Your task to perform on an android device: visit the assistant section in the google photos Image 0: 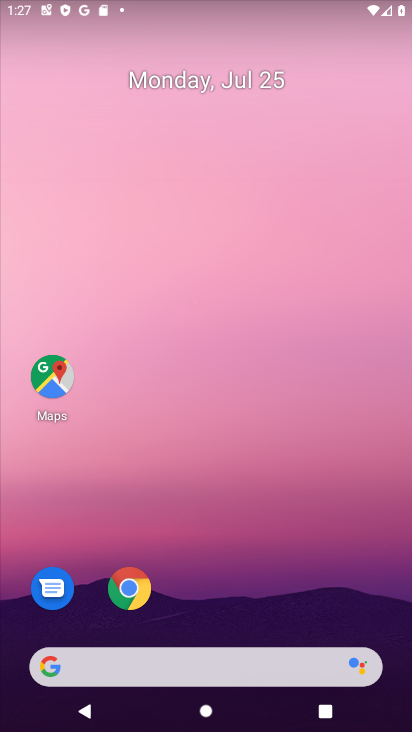
Step 0: drag from (196, 581) to (186, 63)
Your task to perform on an android device: visit the assistant section in the google photos Image 1: 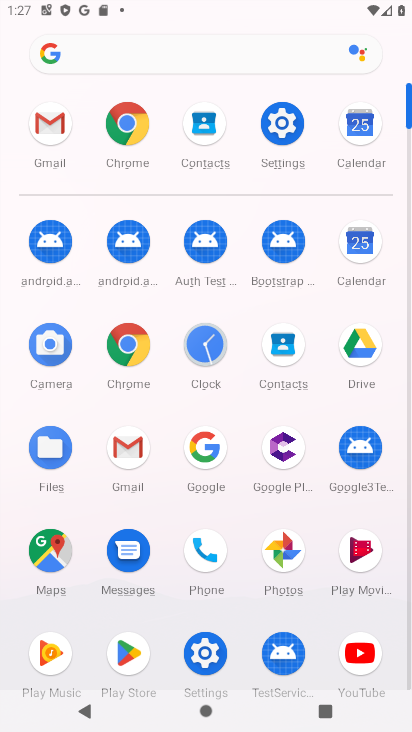
Step 1: click (274, 555)
Your task to perform on an android device: visit the assistant section in the google photos Image 2: 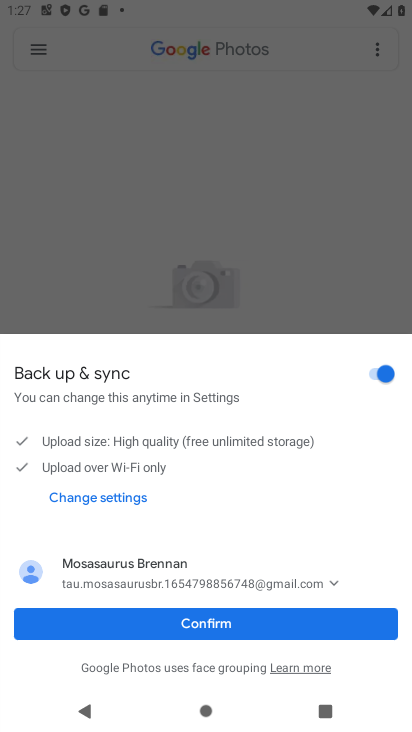
Step 2: click (211, 625)
Your task to perform on an android device: visit the assistant section in the google photos Image 3: 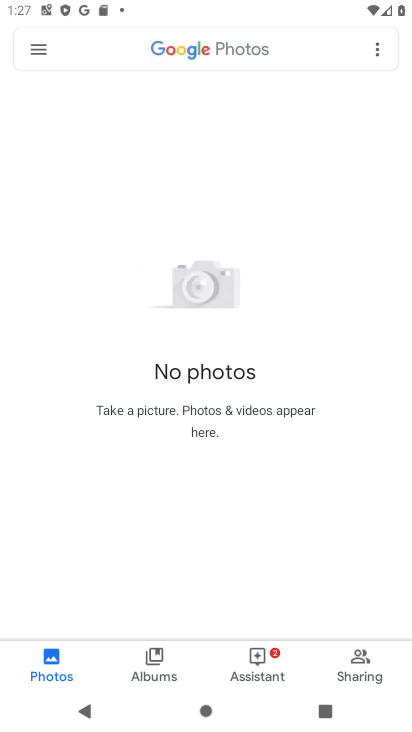
Step 3: click (34, 45)
Your task to perform on an android device: visit the assistant section in the google photos Image 4: 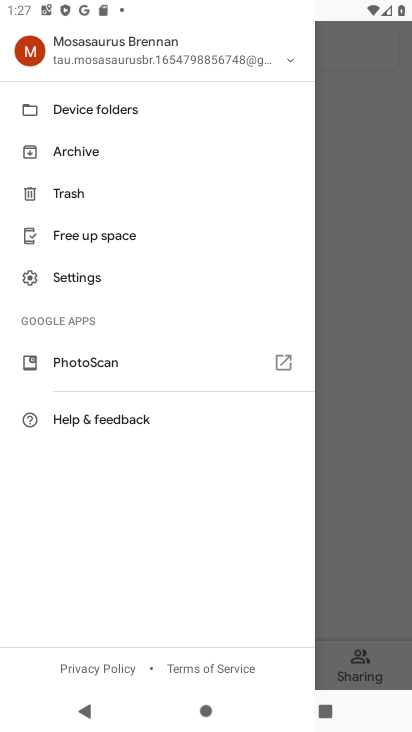
Step 4: press back button
Your task to perform on an android device: visit the assistant section in the google photos Image 5: 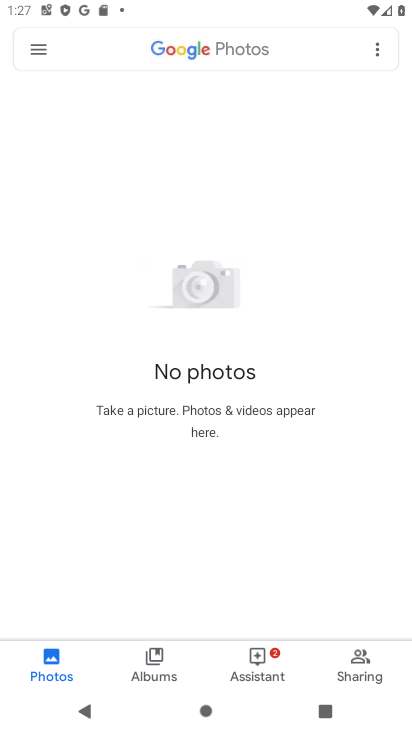
Step 5: click (263, 676)
Your task to perform on an android device: visit the assistant section in the google photos Image 6: 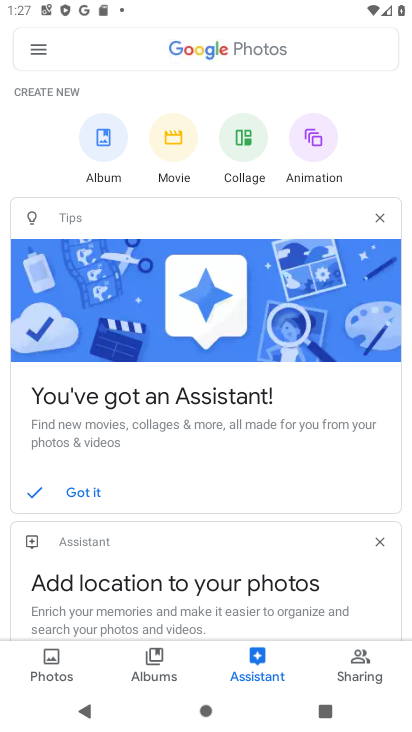
Step 6: drag from (248, 466) to (248, 146)
Your task to perform on an android device: visit the assistant section in the google photos Image 7: 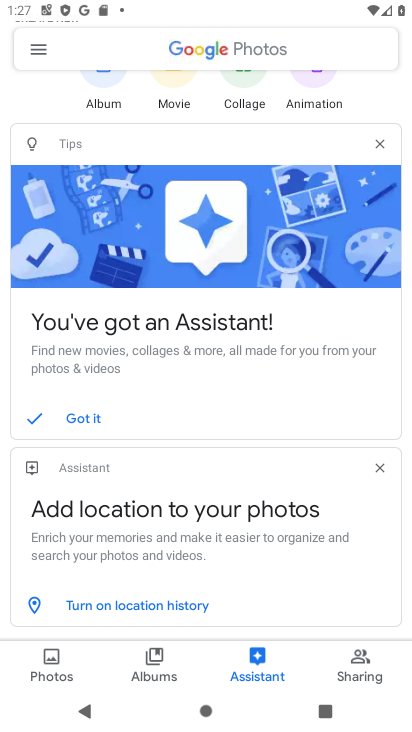
Step 7: drag from (274, 428) to (267, 329)
Your task to perform on an android device: visit the assistant section in the google photos Image 8: 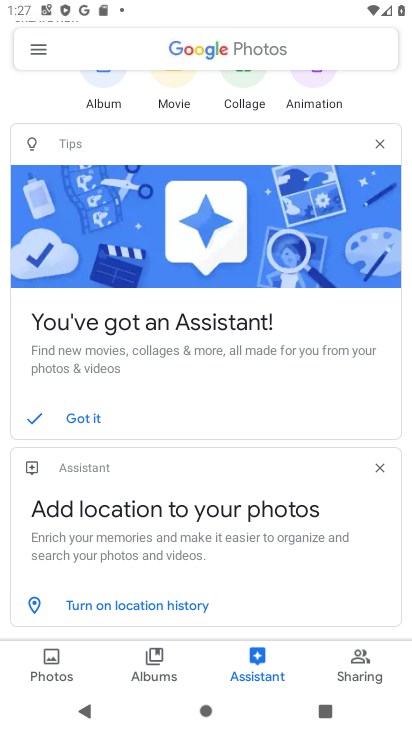
Step 8: click (267, 329)
Your task to perform on an android device: visit the assistant section in the google photos Image 9: 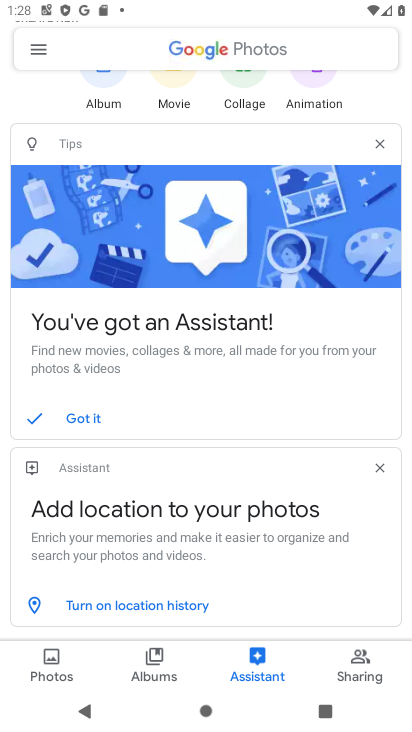
Step 9: task complete